Your task to perform on an android device: Show me recent news Image 0: 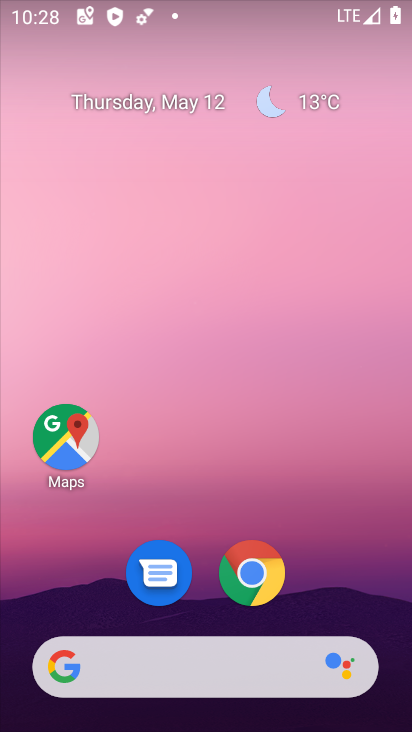
Step 0: click (221, 684)
Your task to perform on an android device: Show me recent news Image 1: 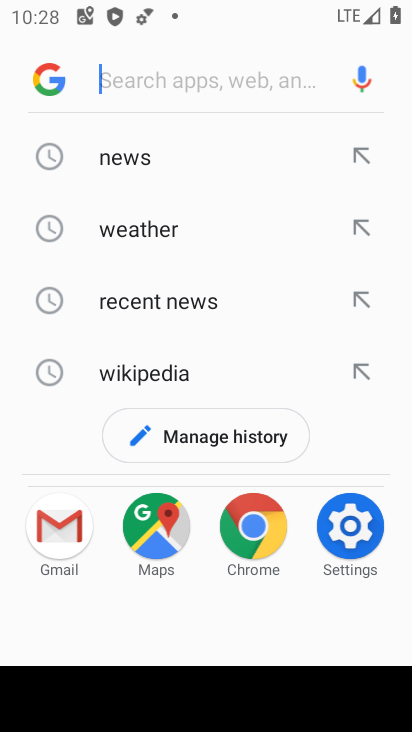
Step 1: click (133, 152)
Your task to perform on an android device: Show me recent news Image 2: 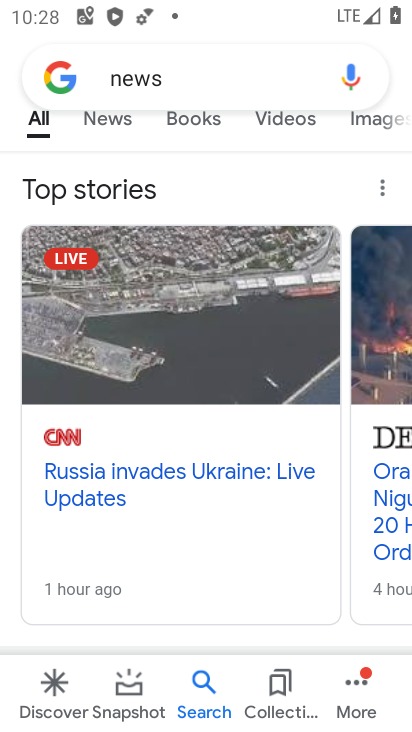
Step 2: click (104, 130)
Your task to perform on an android device: Show me recent news Image 3: 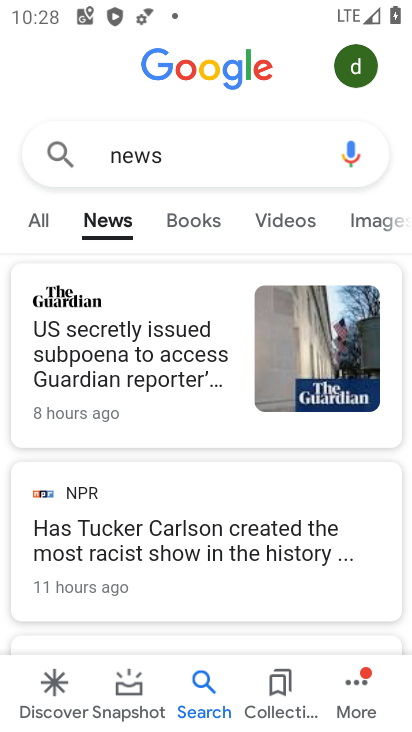
Step 3: task complete